Your task to perform on an android device: Open Youtube and go to the subscriptions tab Image 0: 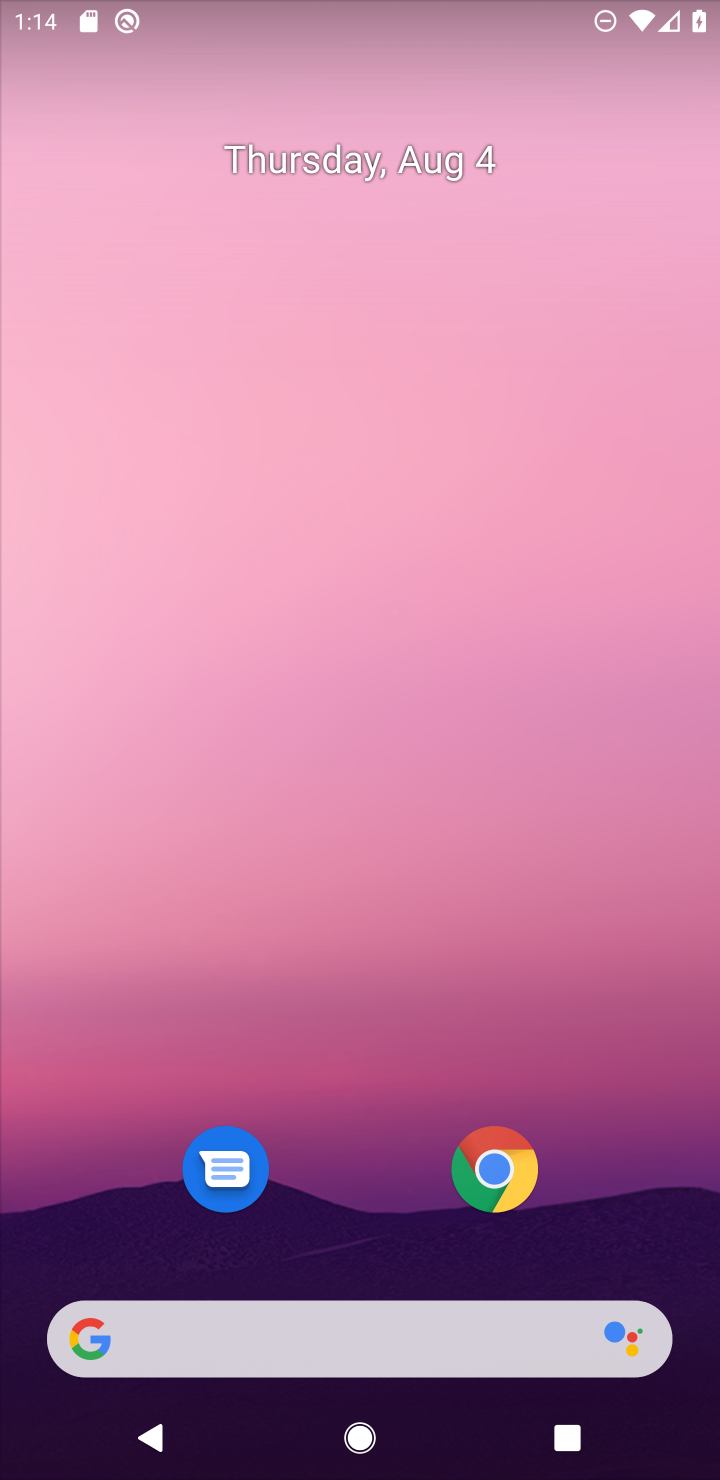
Step 0: drag from (615, 1214) to (705, 122)
Your task to perform on an android device: Open Youtube and go to the subscriptions tab Image 1: 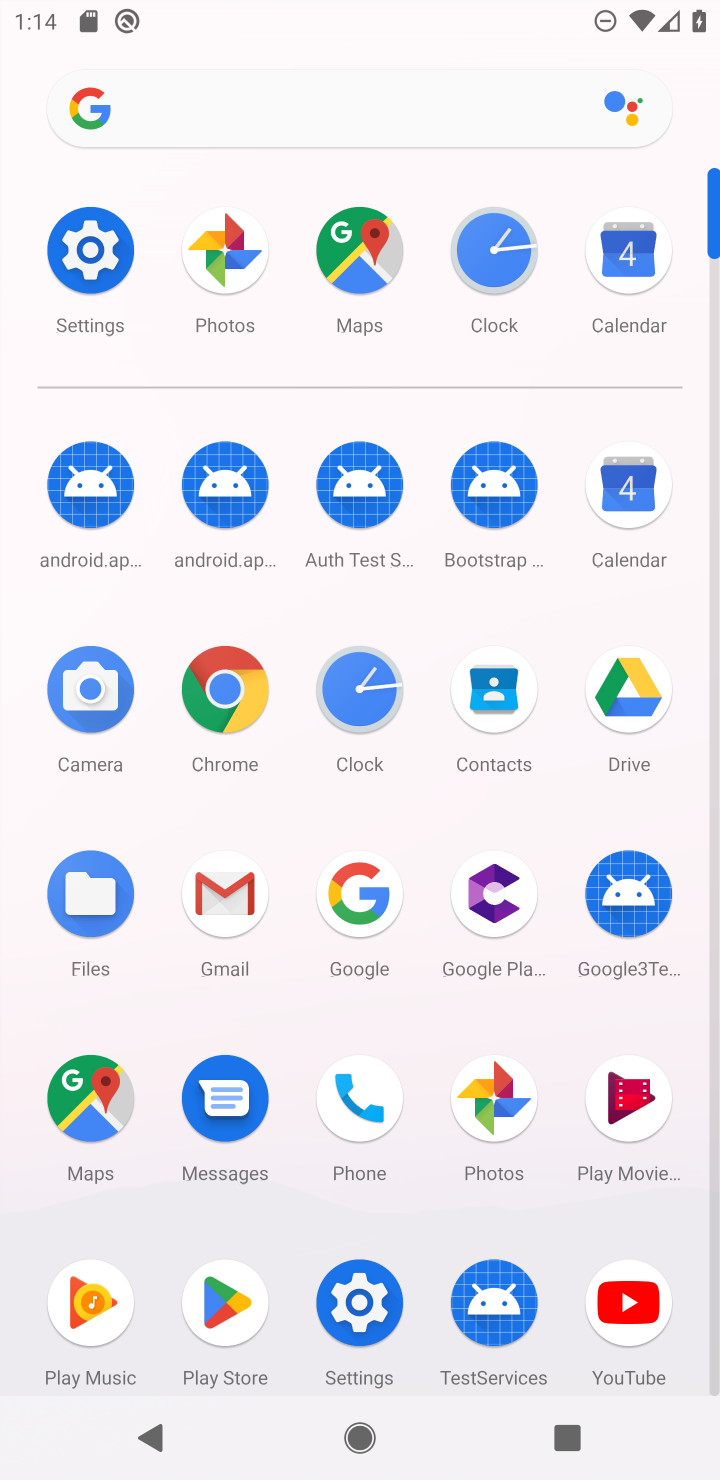
Step 1: click (626, 1308)
Your task to perform on an android device: Open Youtube and go to the subscriptions tab Image 2: 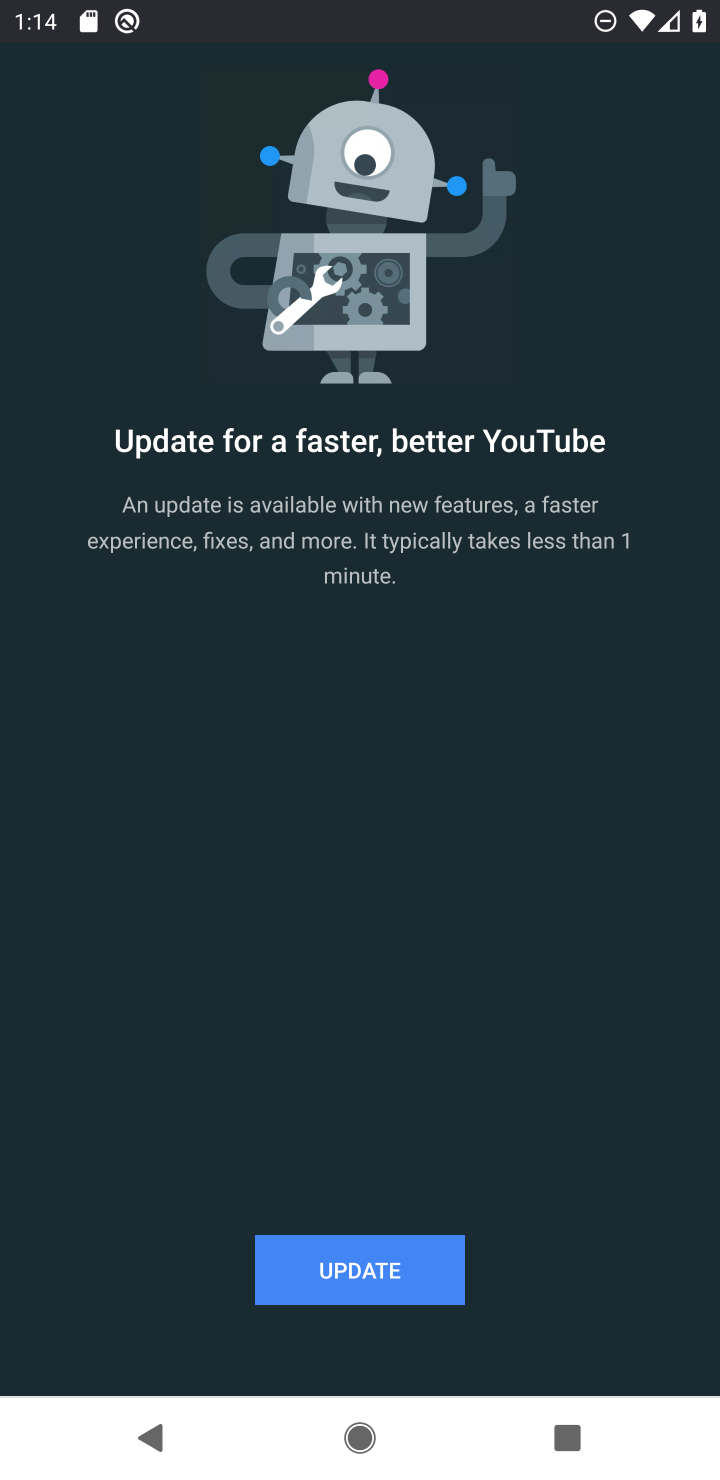
Step 2: click (340, 1279)
Your task to perform on an android device: Open Youtube and go to the subscriptions tab Image 3: 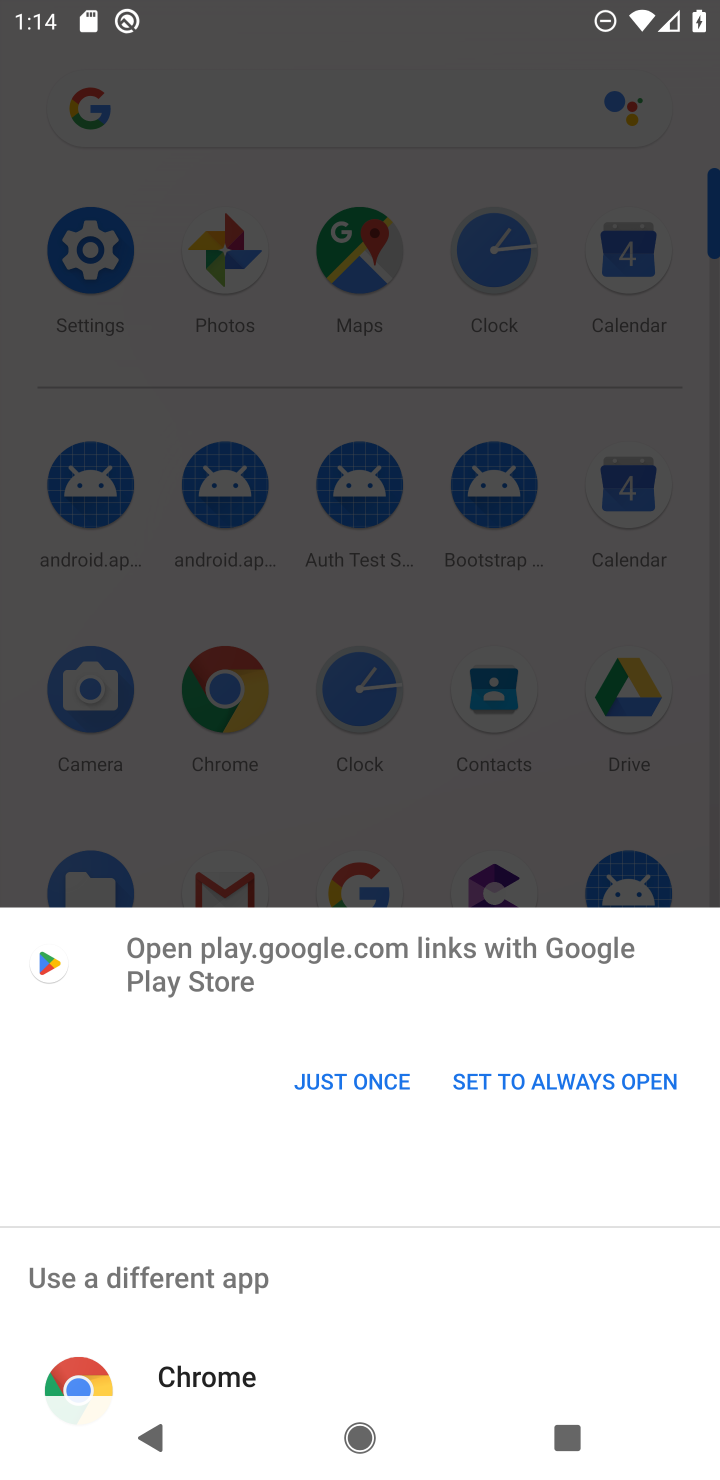
Step 3: click (353, 1077)
Your task to perform on an android device: Open Youtube and go to the subscriptions tab Image 4: 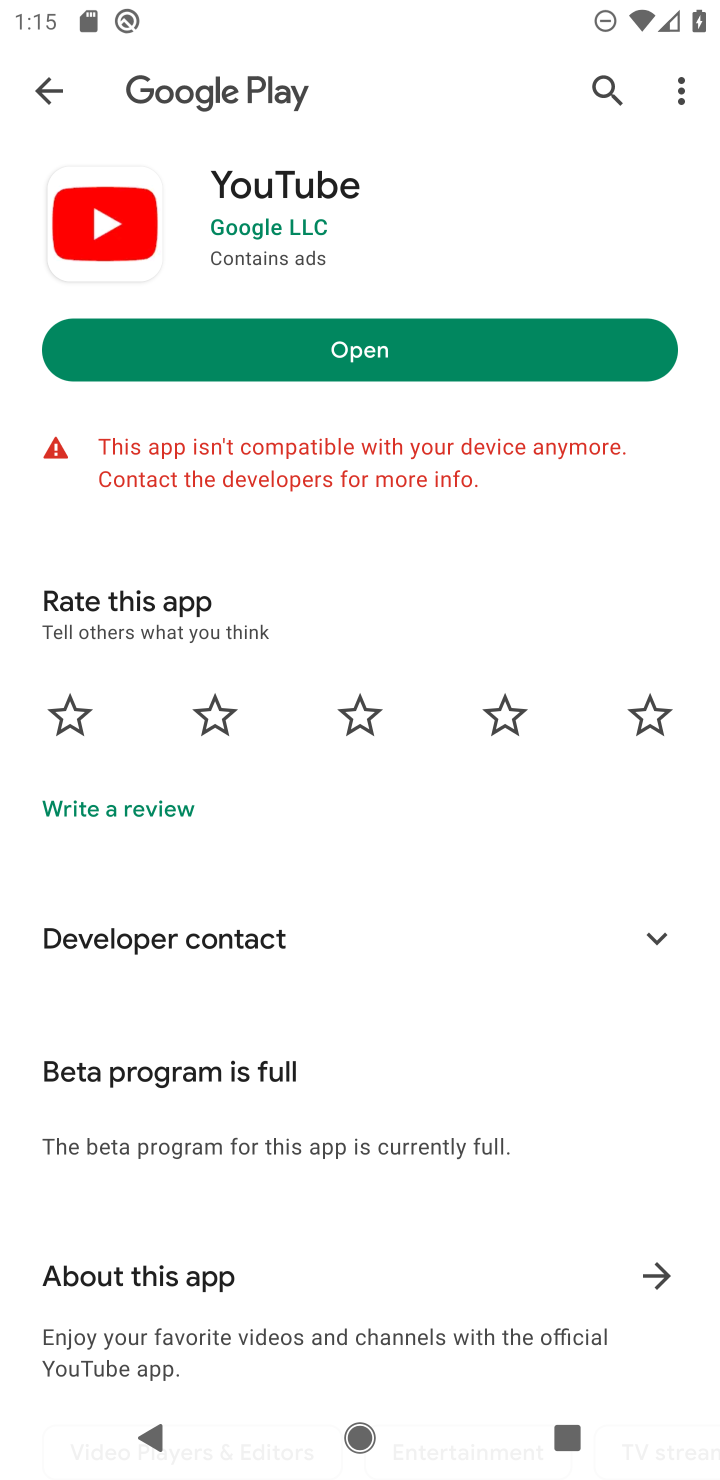
Step 4: click (376, 366)
Your task to perform on an android device: Open Youtube and go to the subscriptions tab Image 5: 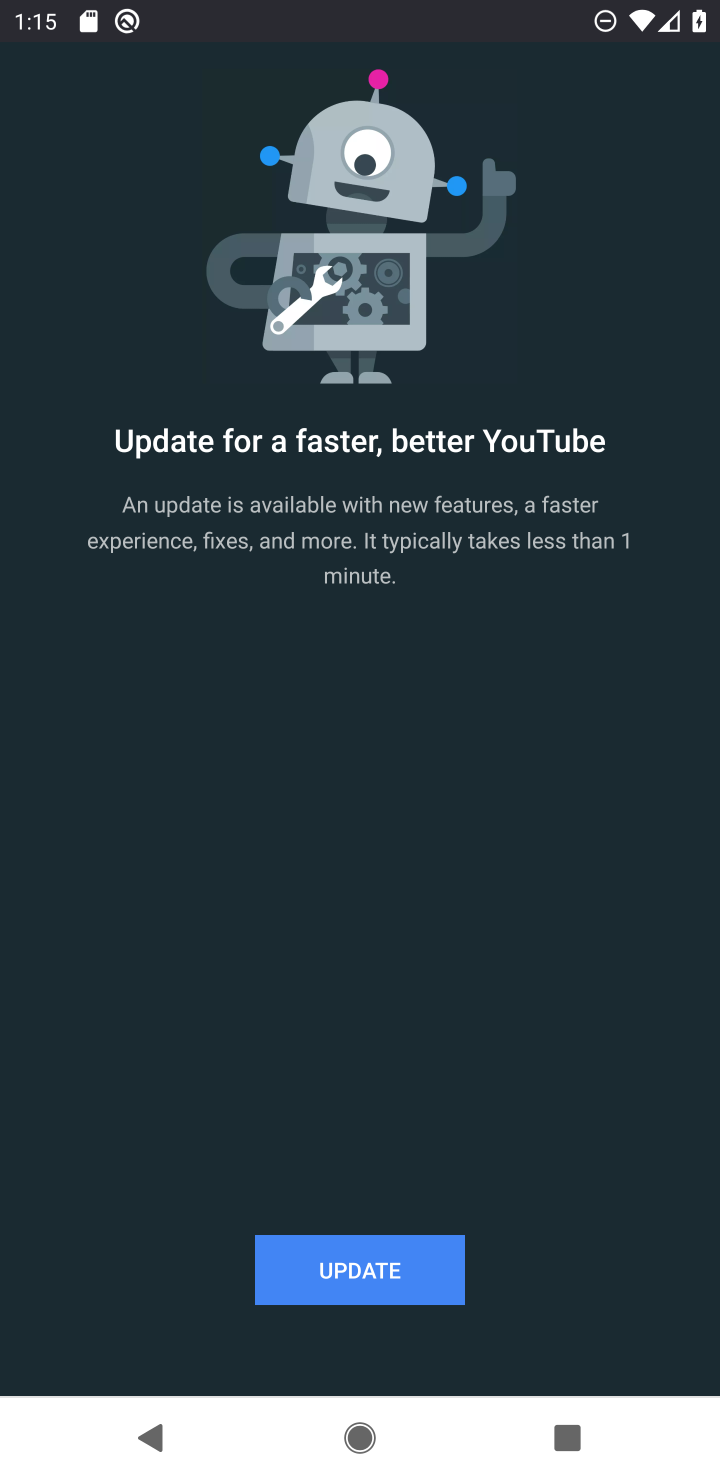
Step 5: task complete